Your task to perform on an android device: Open Google Chrome Image 0: 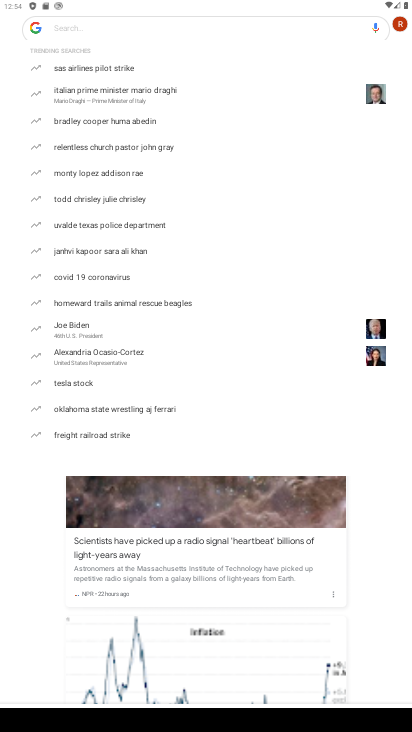
Step 0: press home button
Your task to perform on an android device: Open Google Chrome Image 1: 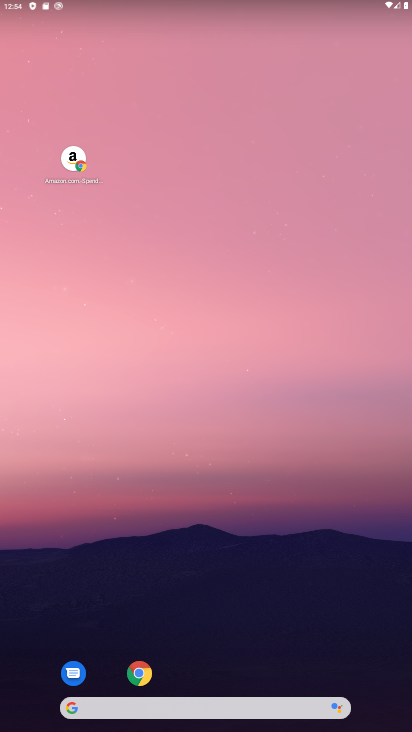
Step 1: drag from (287, 644) to (282, 79)
Your task to perform on an android device: Open Google Chrome Image 2: 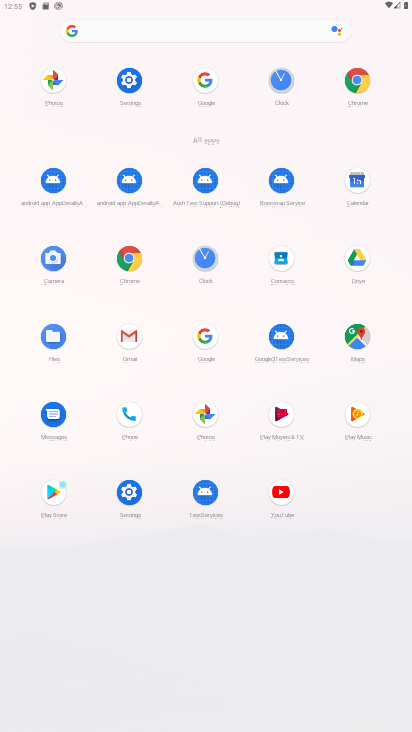
Step 2: click (352, 79)
Your task to perform on an android device: Open Google Chrome Image 3: 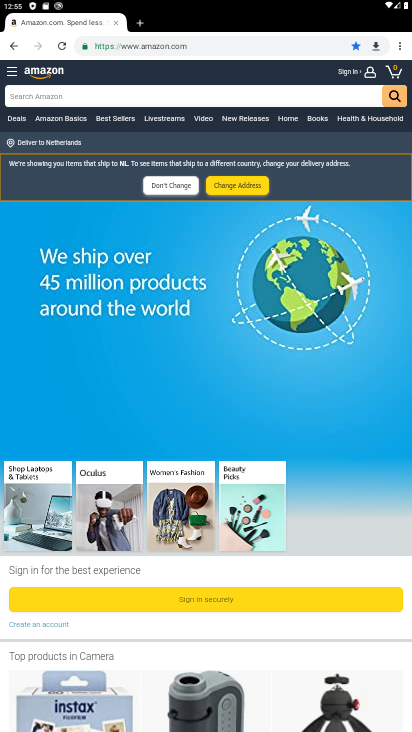
Step 3: task complete